Your task to perform on an android device: open app "Truecaller" (install if not already installed) and go to login screen Image 0: 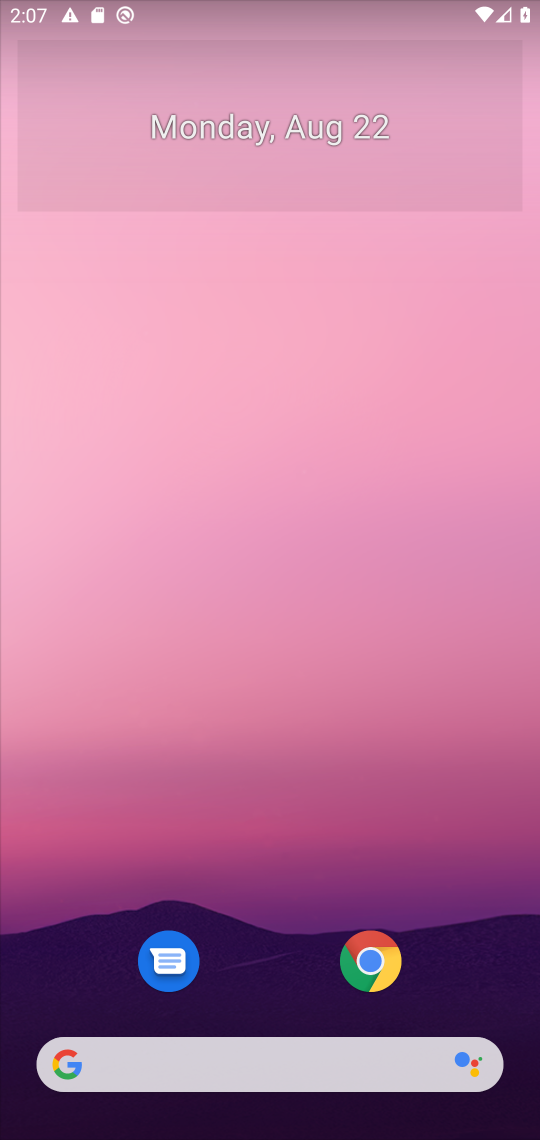
Step 0: drag from (463, 969) to (474, 141)
Your task to perform on an android device: open app "Truecaller" (install if not already installed) and go to login screen Image 1: 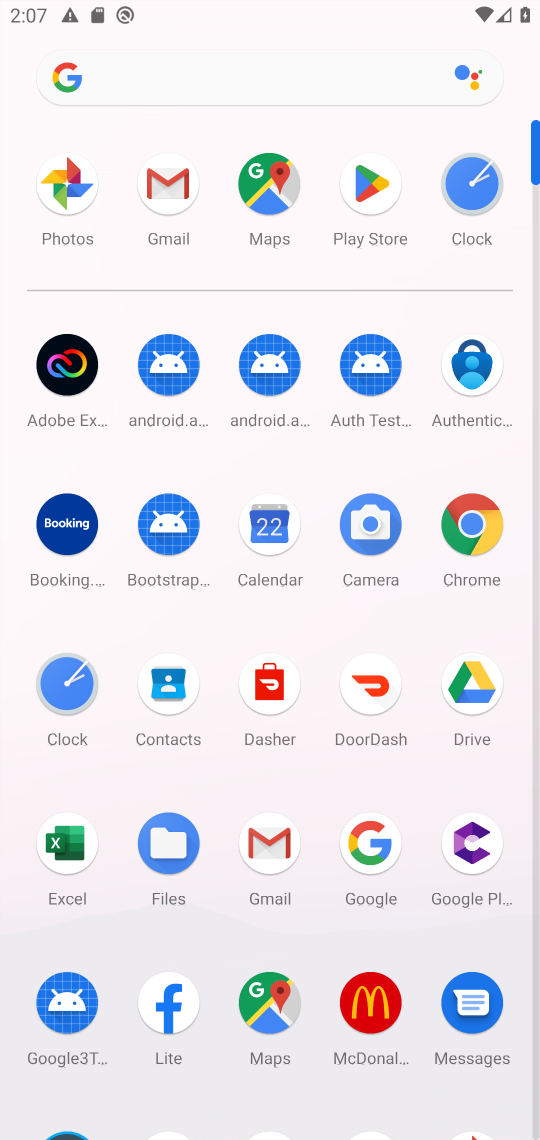
Step 1: click (373, 187)
Your task to perform on an android device: open app "Truecaller" (install if not already installed) and go to login screen Image 2: 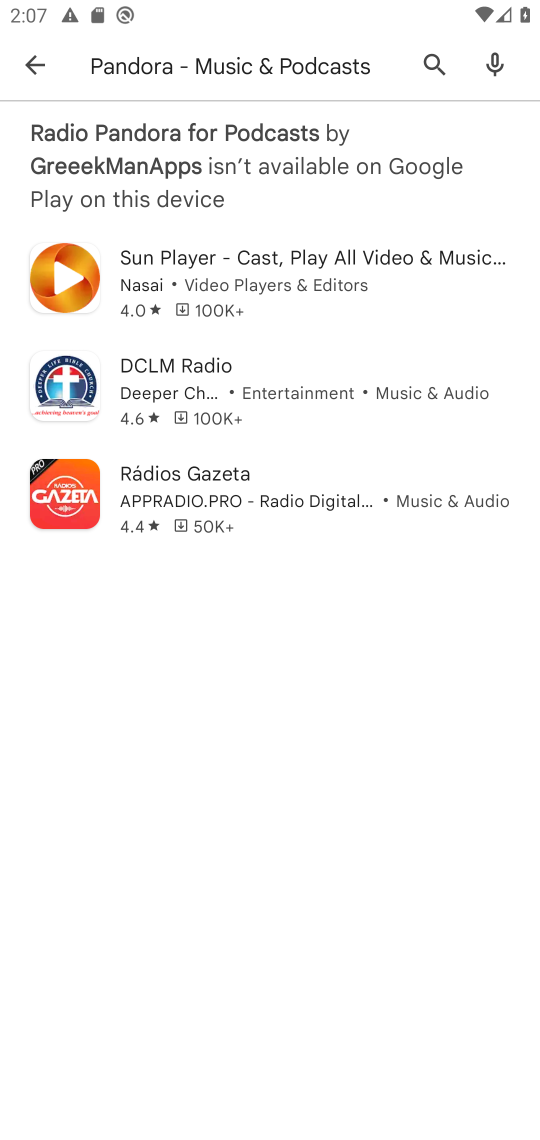
Step 2: press back button
Your task to perform on an android device: open app "Truecaller" (install if not already installed) and go to login screen Image 3: 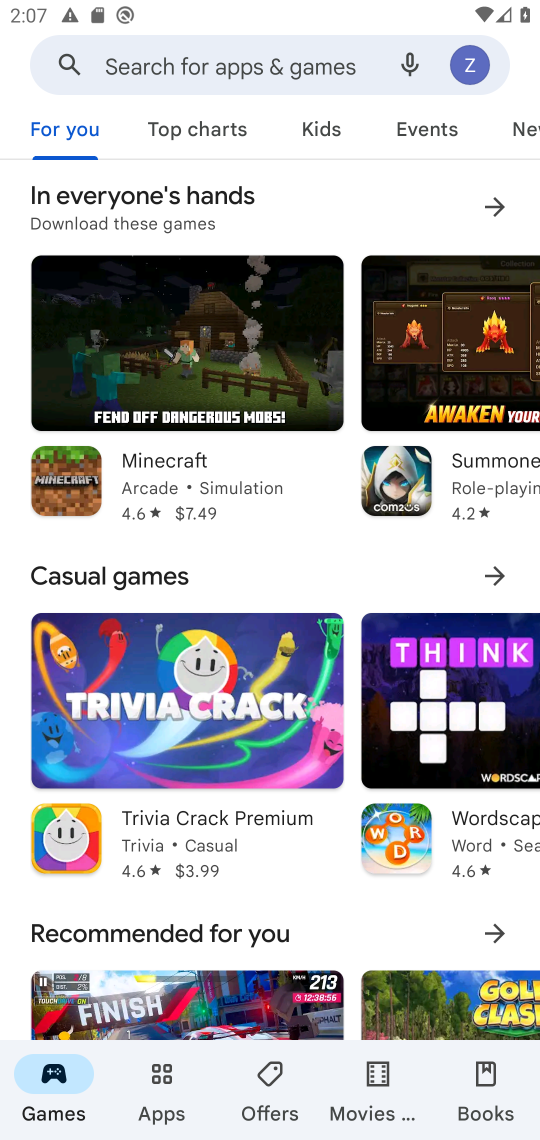
Step 3: click (258, 57)
Your task to perform on an android device: open app "Truecaller" (install if not already installed) and go to login screen Image 4: 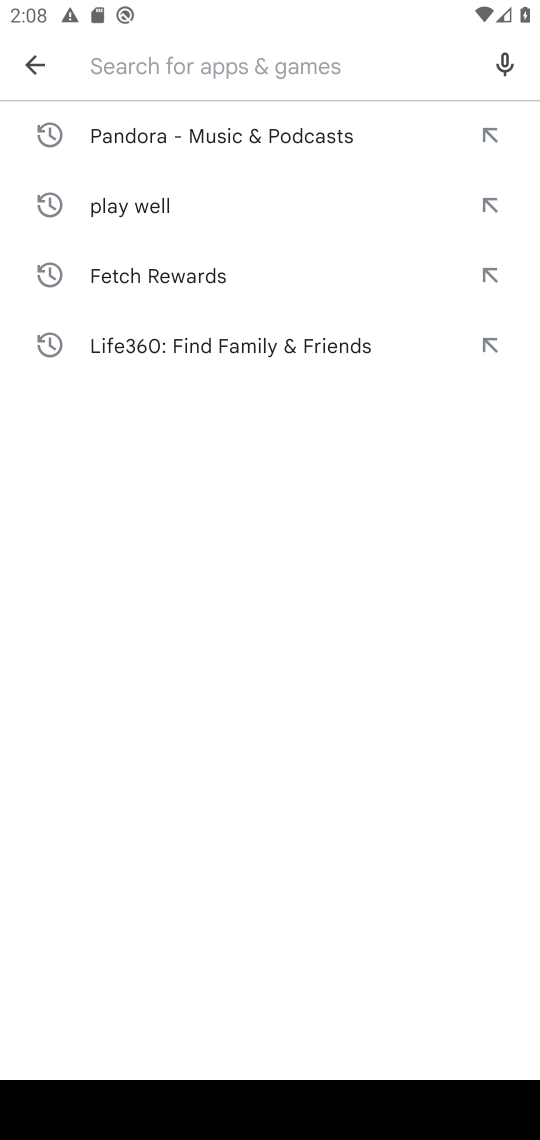
Step 4: type "truecaller"
Your task to perform on an android device: open app "Truecaller" (install if not already installed) and go to login screen Image 5: 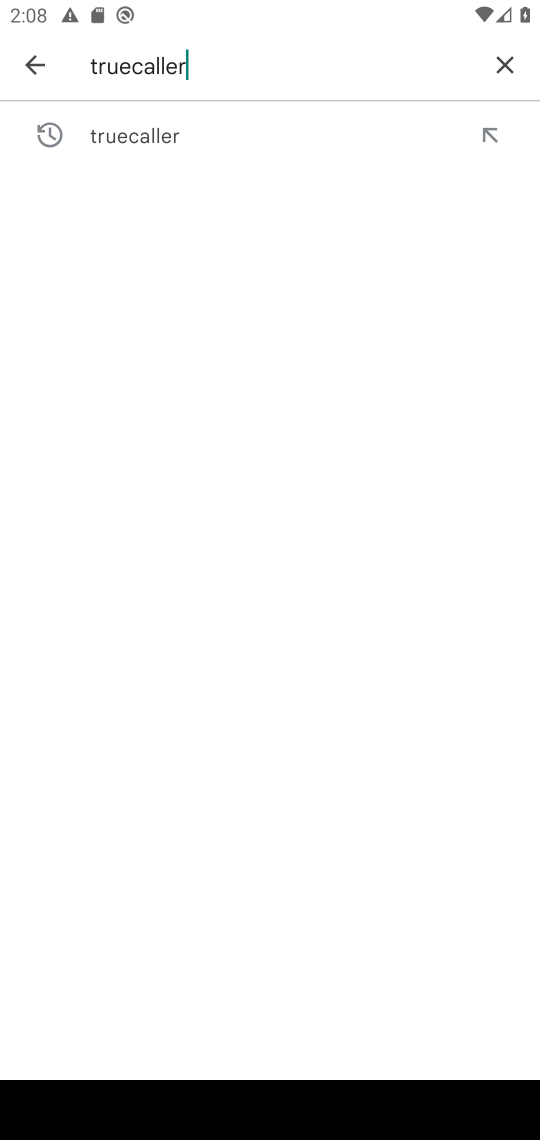
Step 5: click (190, 139)
Your task to perform on an android device: open app "Truecaller" (install if not already installed) and go to login screen Image 6: 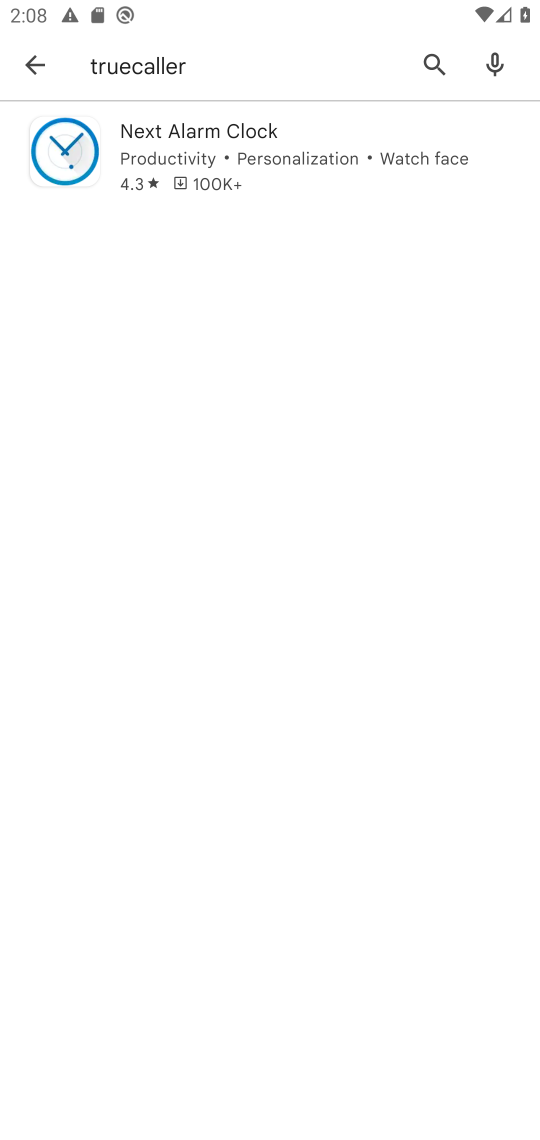
Step 6: task complete